Your task to perform on an android device: delete a single message in the gmail app Image 0: 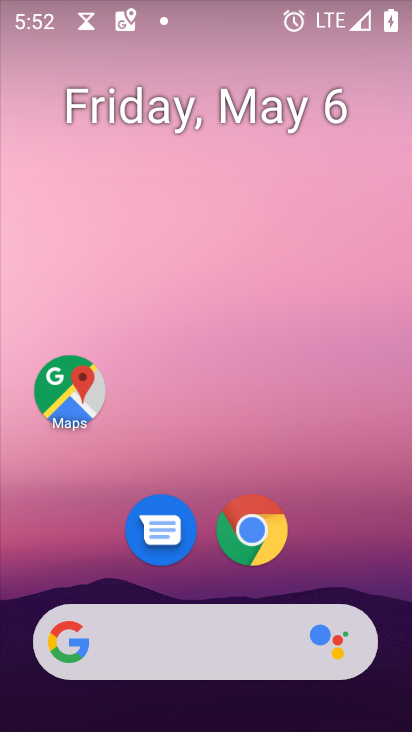
Step 0: drag from (276, 311) to (197, 69)
Your task to perform on an android device: delete a single message in the gmail app Image 1: 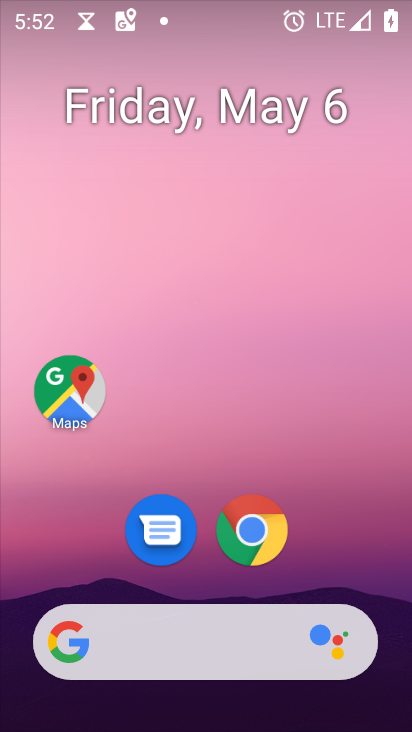
Step 1: drag from (336, 525) to (191, 10)
Your task to perform on an android device: delete a single message in the gmail app Image 2: 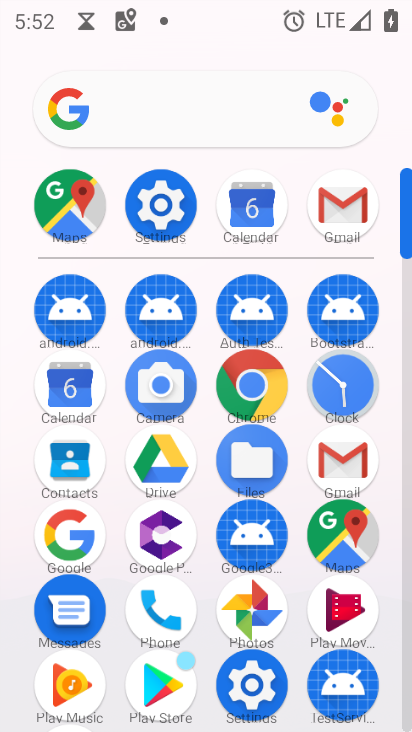
Step 2: click (341, 444)
Your task to perform on an android device: delete a single message in the gmail app Image 3: 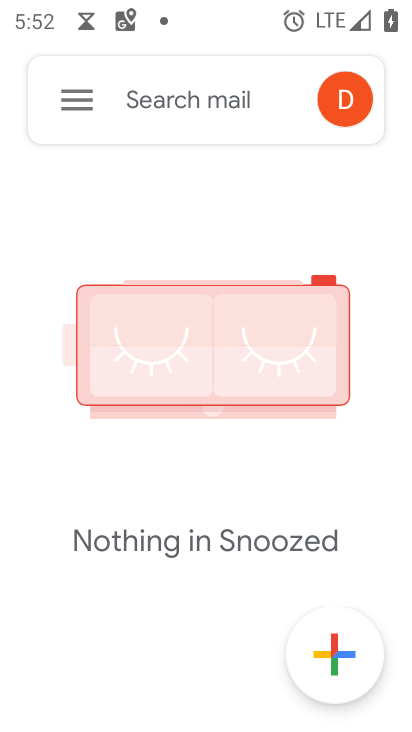
Step 3: click (68, 98)
Your task to perform on an android device: delete a single message in the gmail app Image 4: 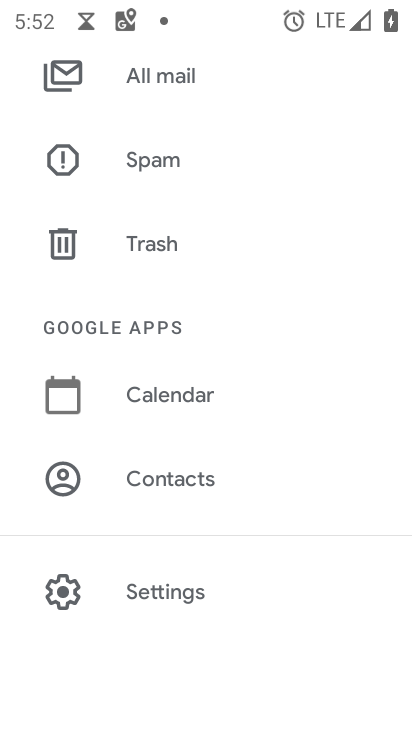
Step 4: click (201, 77)
Your task to perform on an android device: delete a single message in the gmail app Image 5: 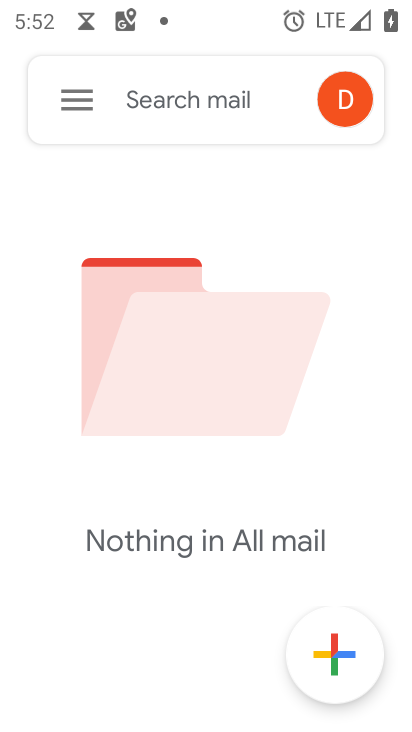
Step 5: task complete